Your task to perform on an android device: choose inbox layout in the gmail app Image 0: 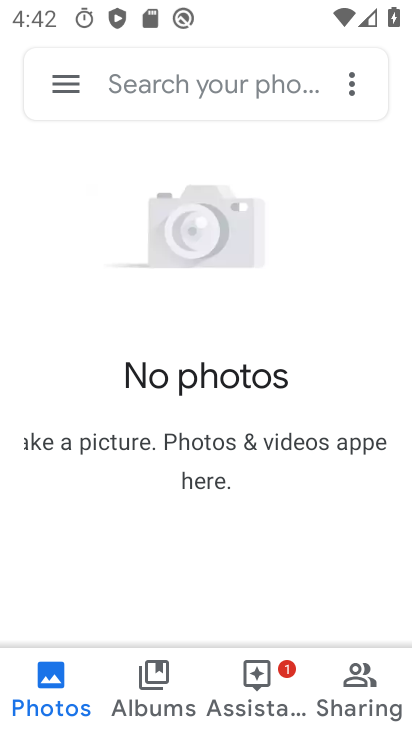
Step 0: press home button
Your task to perform on an android device: choose inbox layout in the gmail app Image 1: 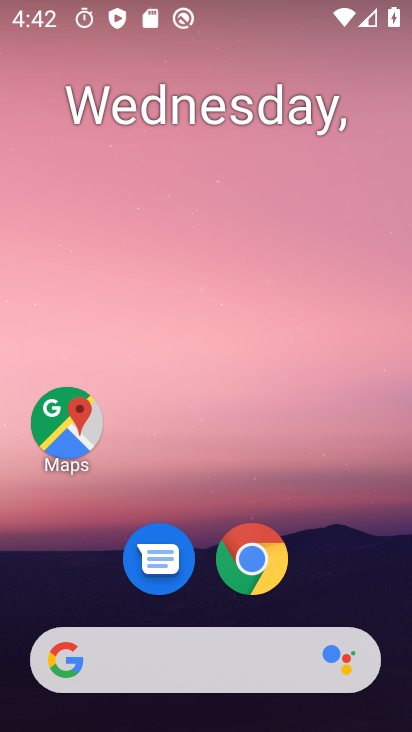
Step 1: drag from (390, 582) to (281, 176)
Your task to perform on an android device: choose inbox layout in the gmail app Image 2: 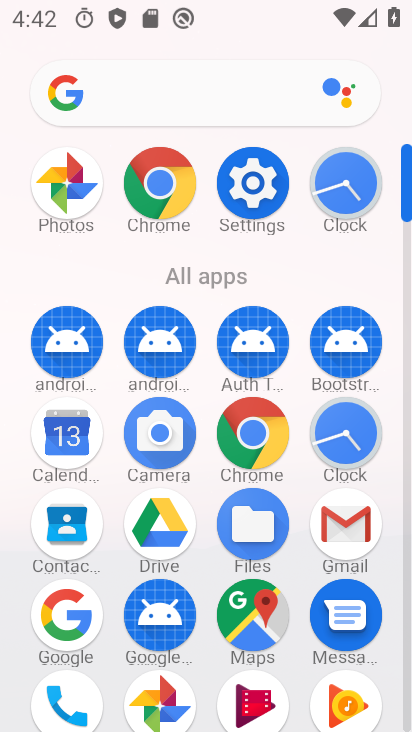
Step 2: click (350, 513)
Your task to perform on an android device: choose inbox layout in the gmail app Image 3: 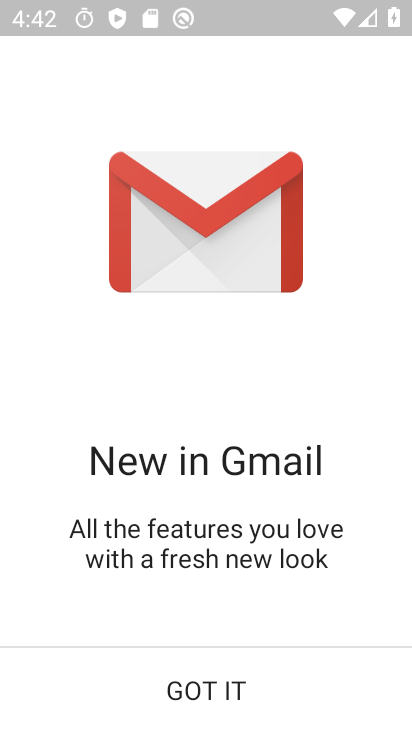
Step 3: click (229, 682)
Your task to perform on an android device: choose inbox layout in the gmail app Image 4: 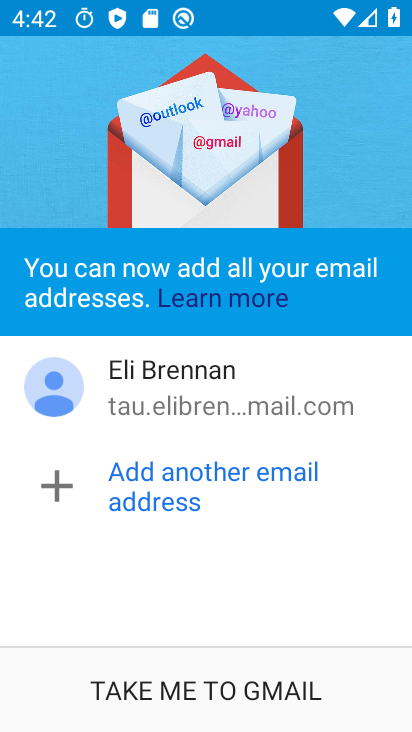
Step 4: click (229, 682)
Your task to perform on an android device: choose inbox layout in the gmail app Image 5: 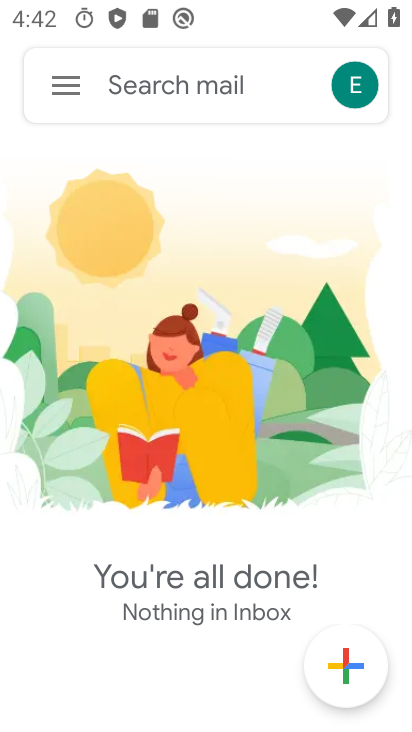
Step 5: click (58, 88)
Your task to perform on an android device: choose inbox layout in the gmail app Image 6: 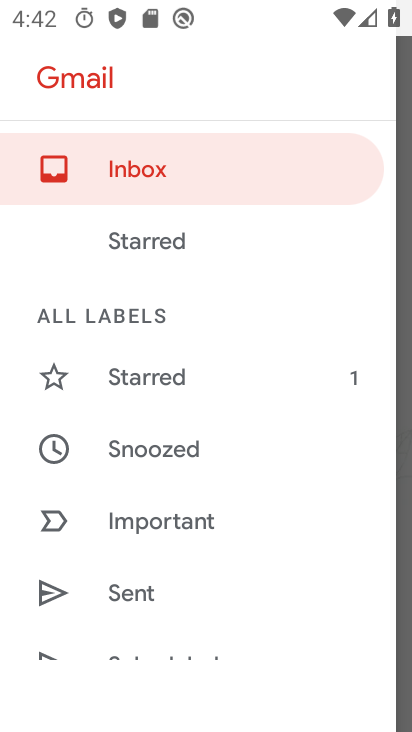
Step 6: drag from (218, 635) to (220, 332)
Your task to perform on an android device: choose inbox layout in the gmail app Image 7: 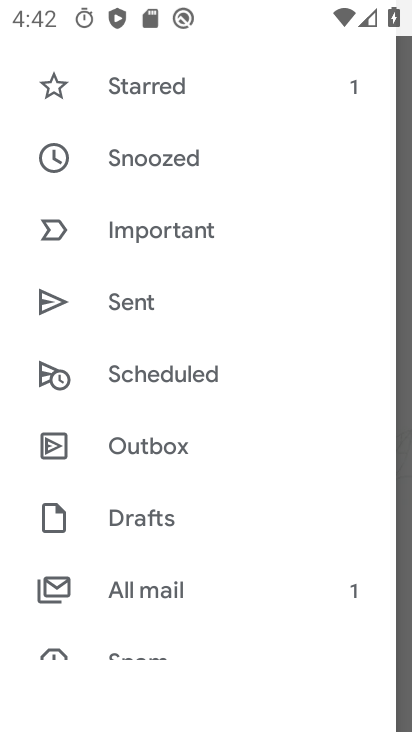
Step 7: drag from (209, 623) to (193, 259)
Your task to perform on an android device: choose inbox layout in the gmail app Image 8: 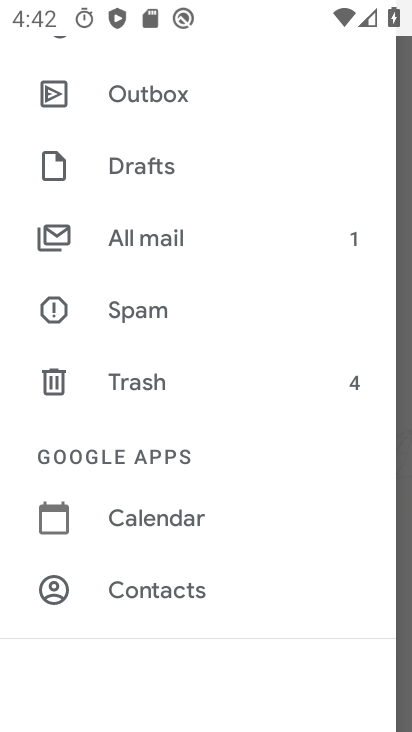
Step 8: drag from (187, 568) to (193, 204)
Your task to perform on an android device: choose inbox layout in the gmail app Image 9: 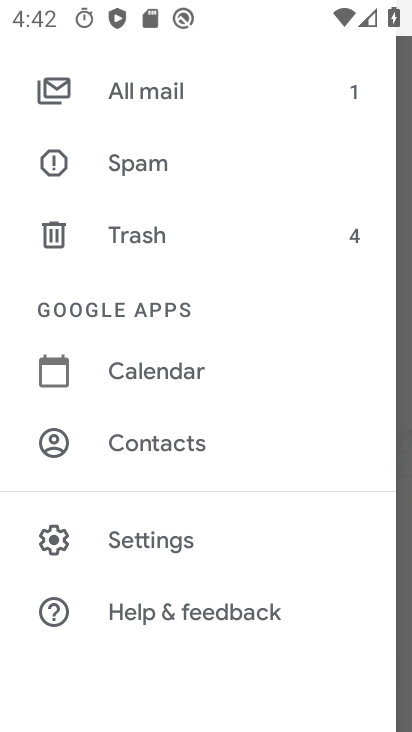
Step 9: click (190, 562)
Your task to perform on an android device: choose inbox layout in the gmail app Image 10: 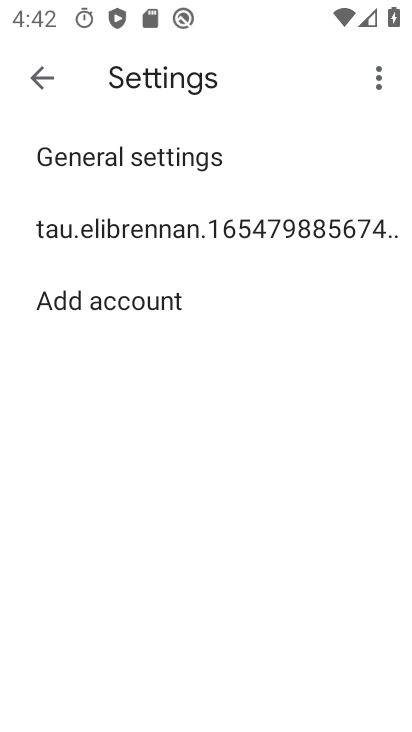
Step 10: click (228, 232)
Your task to perform on an android device: choose inbox layout in the gmail app Image 11: 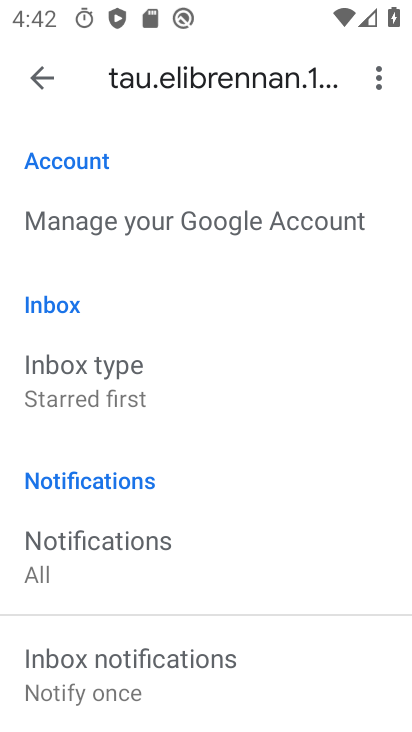
Step 11: click (247, 380)
Your task to perform on an android device: choose inbox layout in the gmail app Image 12: 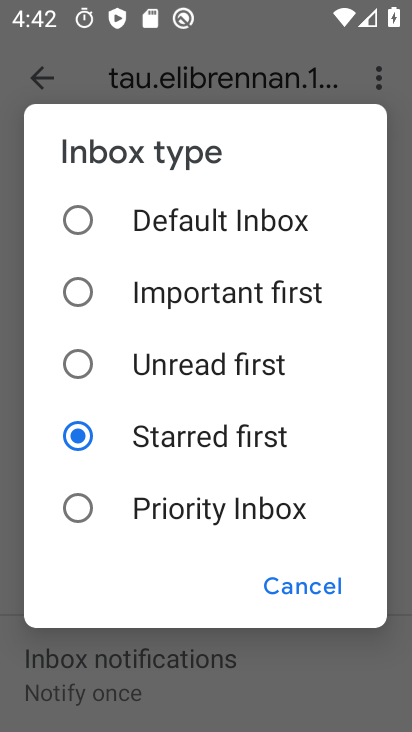
Step 12: click (240, 297)
Your task to perform on an android device: choose inbox layout in the gmail app Image 13: 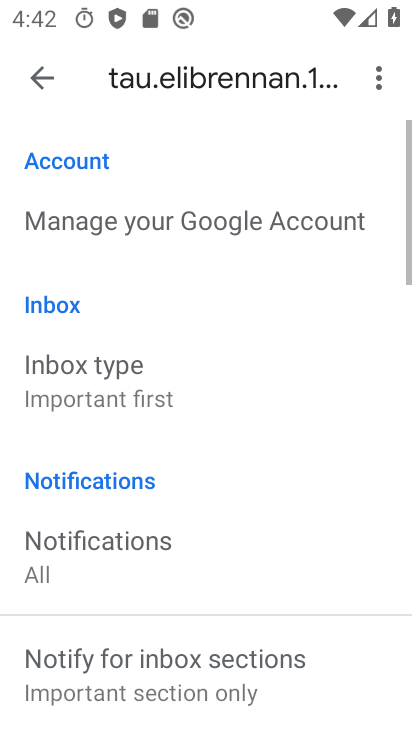
Step 13: task complete